Your task to perform on an android device: install app "Adobe Express: Graphic Design" Image 0: 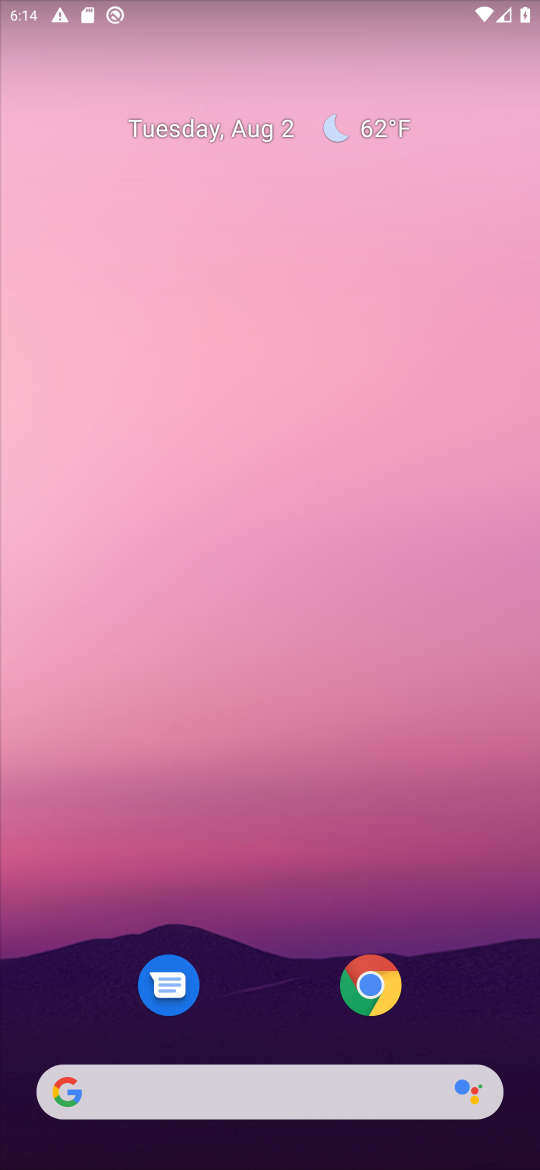
Step 0: drag from (267, 849) to (267, 240)
Your task to perform on an android device: install app "Adobe Express: Graphic Design" Image 1: 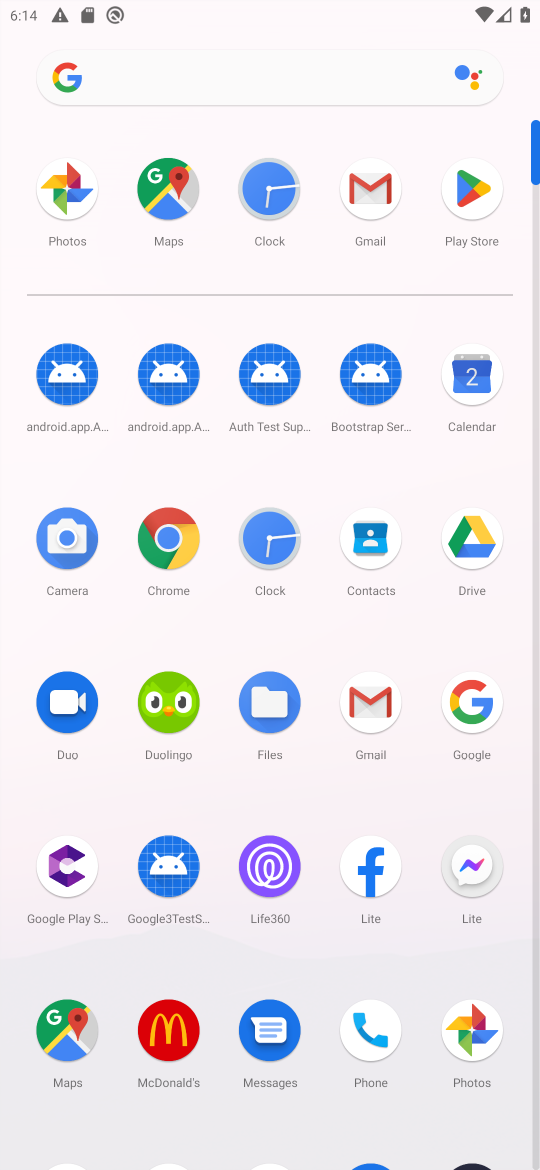
Step 1: click (438, 205)
Your task to perform on an android device: install app "Adobe Express: Graphic Design" Image 2: 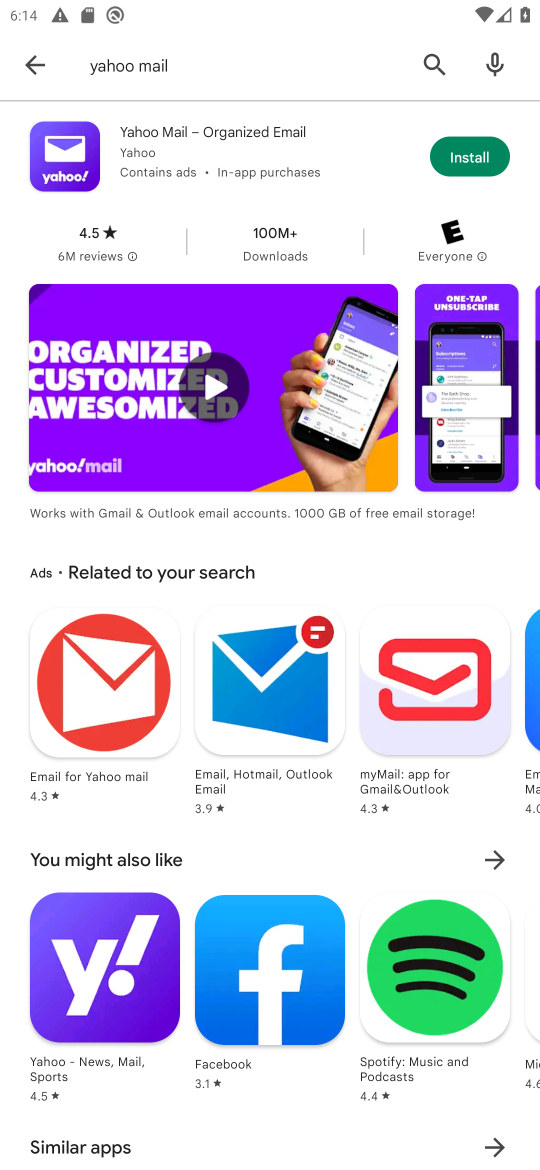
Step 2: click (437, 72)
Your task to perform on an android device: install app "Adobe Express: Graphic Design" Image 3: 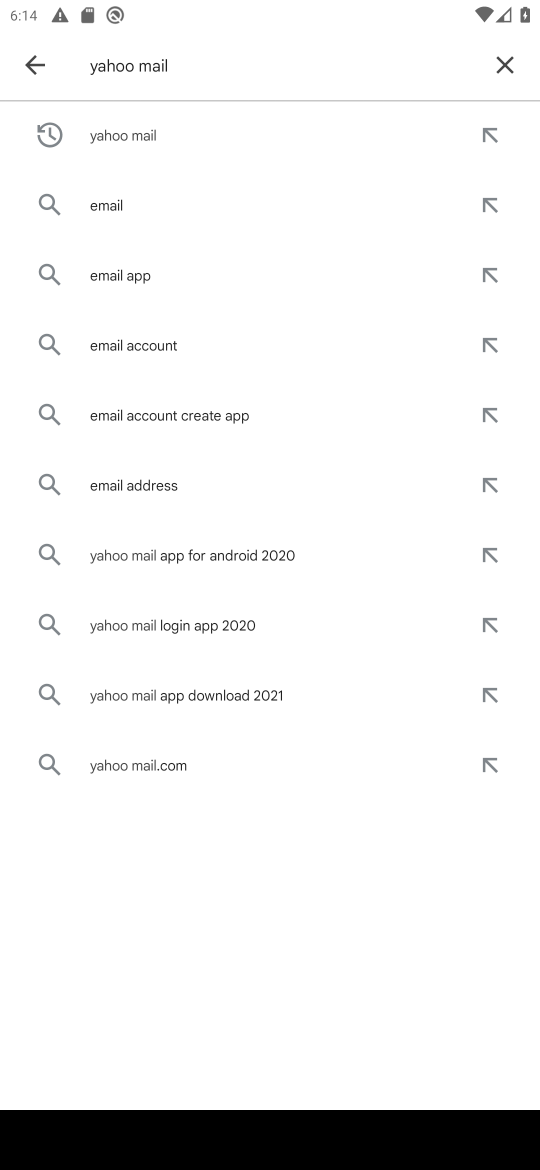
Step 3: click (505, 60)
Your task to perform on an android device: install app "Adobe Express: Graphic Design" Image 4: 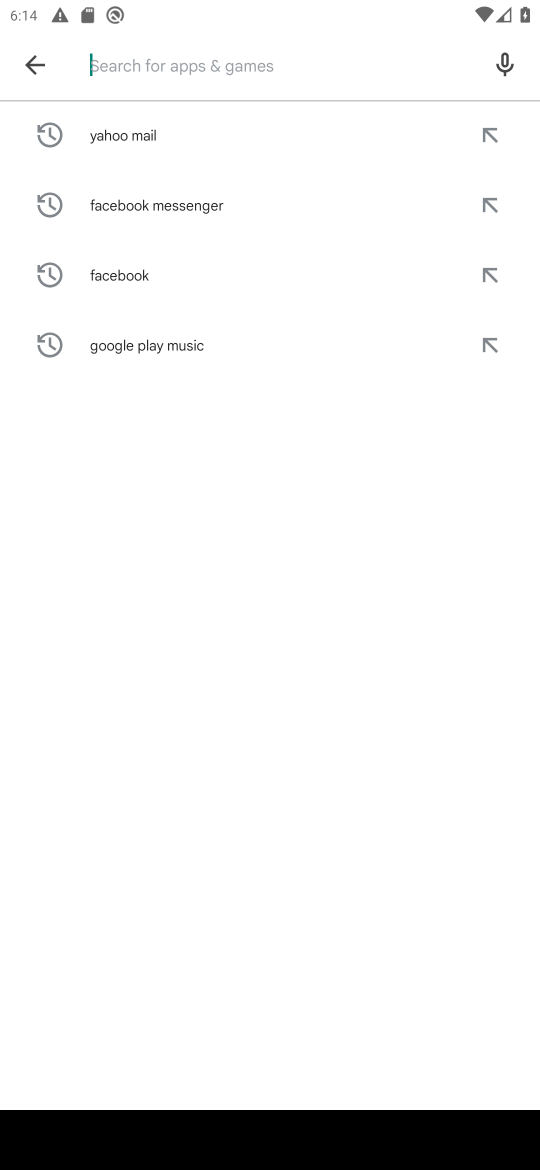
Step 4: type "Adobe Express: Graphic Design"
Your task to perform on an android device: install app "Adobe Express: Graphic Design" Image 5: 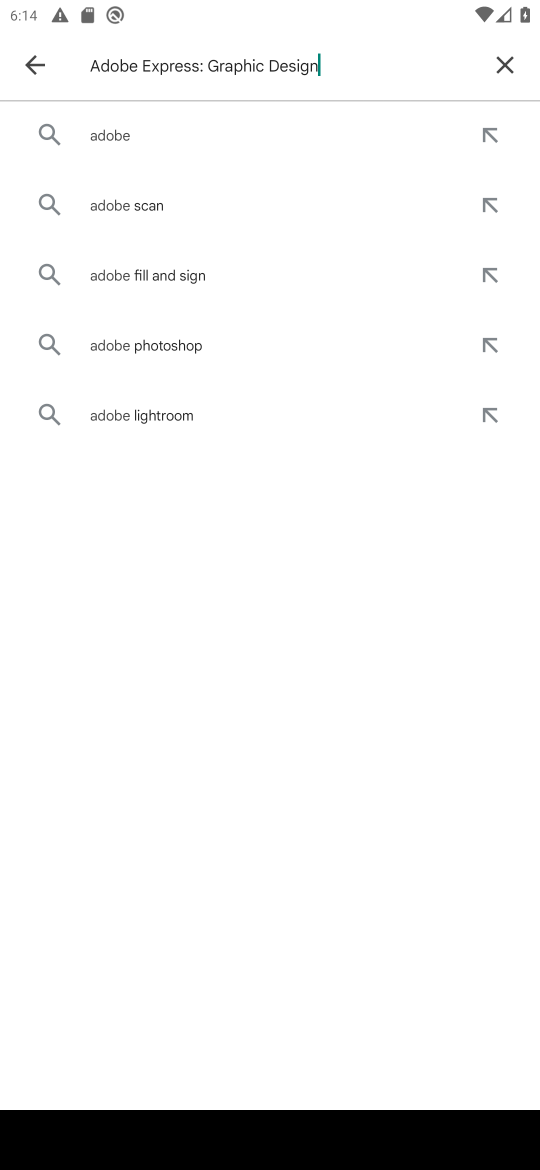
Step 5: type ""
Your task to perform on an android device: install app "Adobe Express: Graphic Design" Image 6: 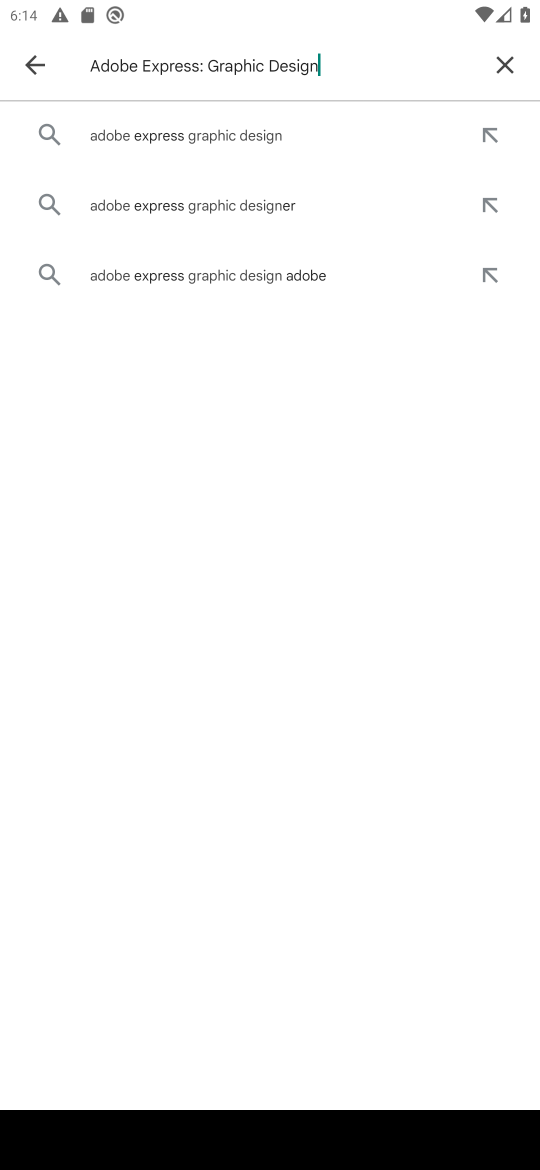
Step 6: click (156, 126)
Your task to perform on an android device: install app "Adobe Express: Graphic Design" Image 7: 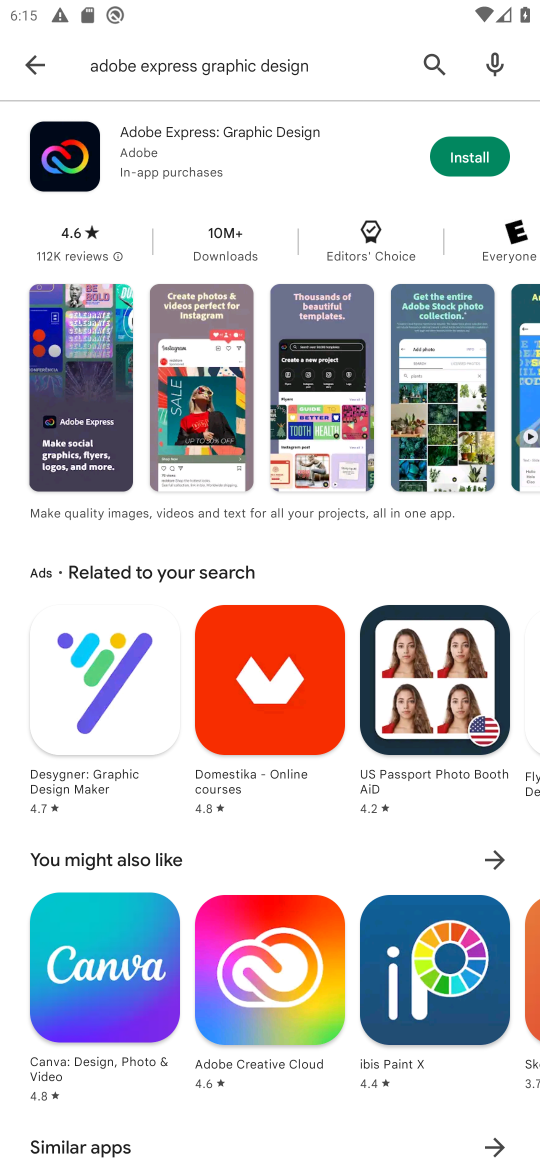
Step 7: click (473, 143)
Your task to perform on an android device: install app "Adobe Express: Graphic Design" Image 8: 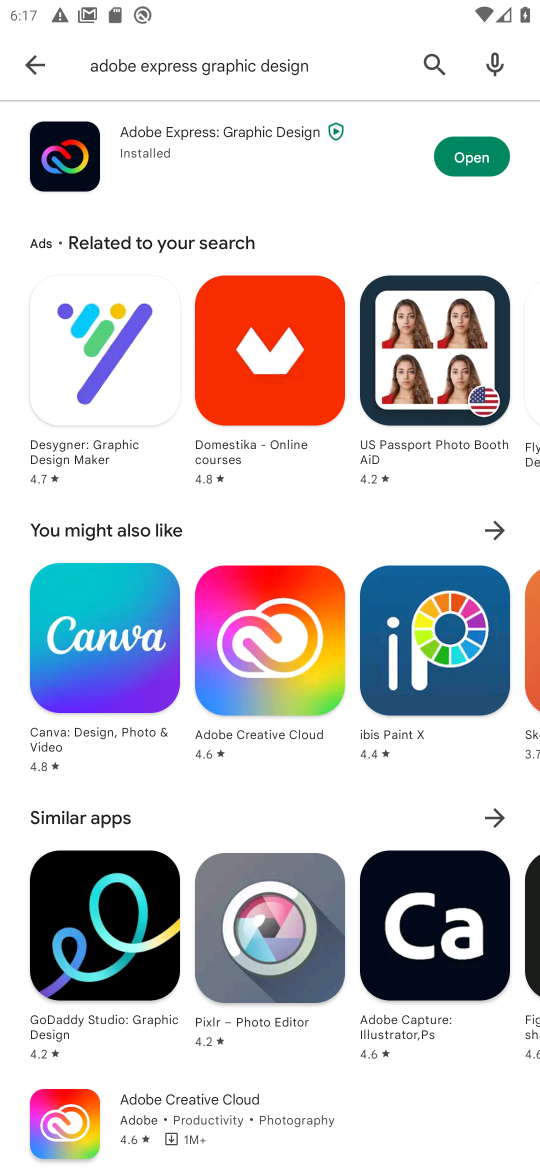
Step 8: task complete